Your task to perform on an android device: star an email in the gmail app Image 0: 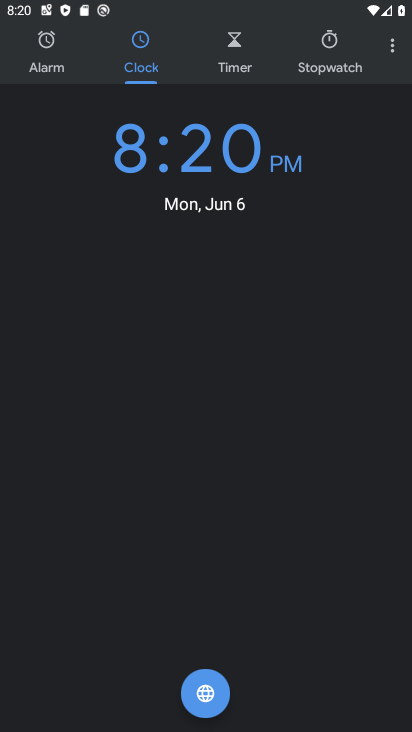
Step 0: press home button
Your task to perform on an android device: star an email in the gmail app Image 1: 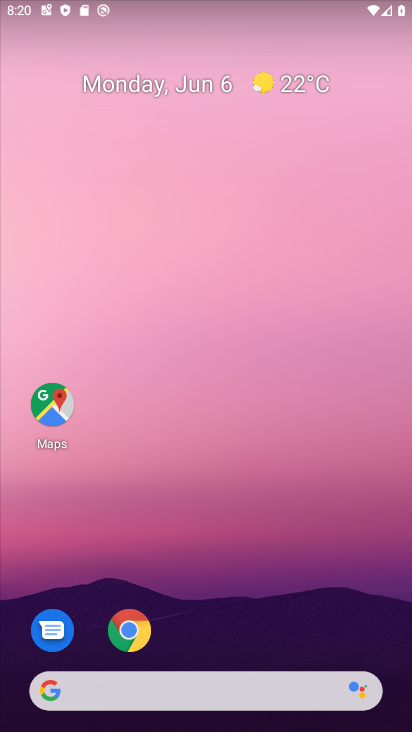
Step 1: click (116, 726)
Your task to perform on an android device: star an email in the gmail app Image 2: 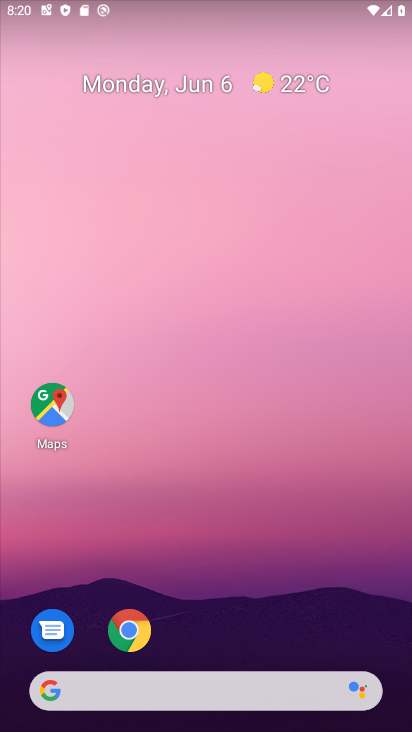
Step 2: drag from (264, 443) to (309, 264)
Your task to perform on an android device: star an email in the gmail app Image 3: 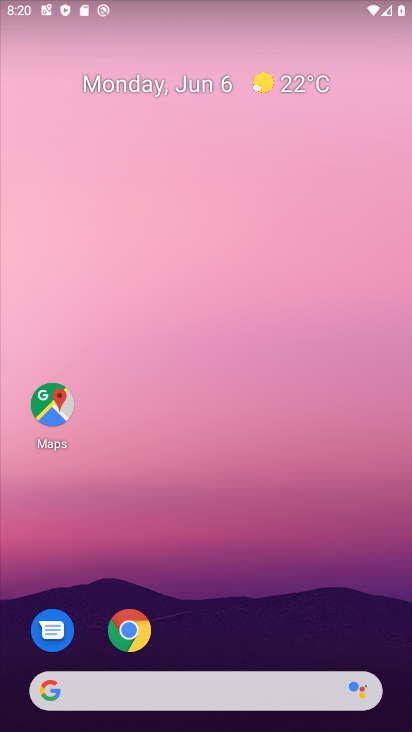
Step 3: drag from (219, 729) to (222, 43)
Your task to perform on an android device: star an email in the gmail app Image 4: 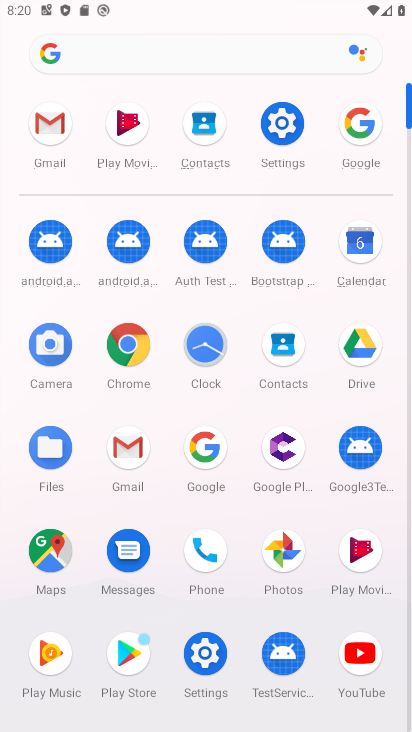
Step 4: click (37, 133)
Your task to perform on an android device: star an email in the gmail app Image 5: 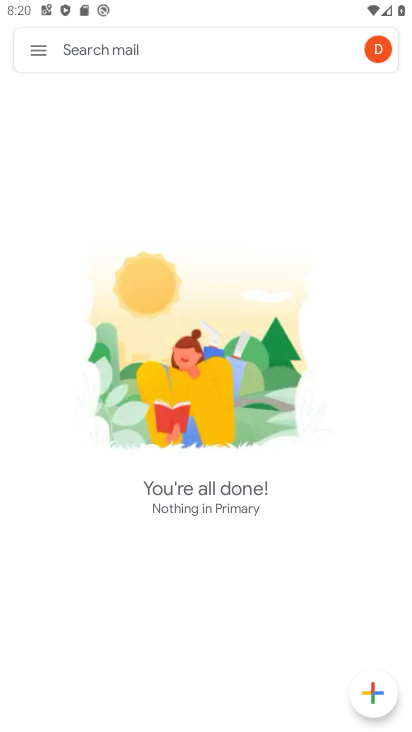
Step 5: click (29, 40)
Your task to perform on an android device: star an email in the gmail app Image 6: 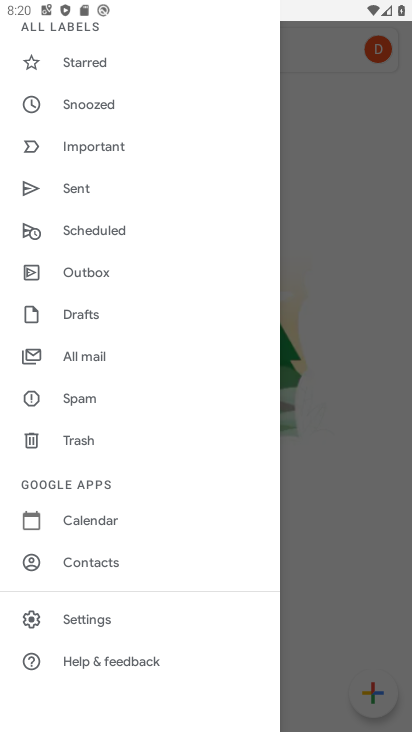
Step 6: click (103, 362)
Your task to perform on an android device: star an email in the gmail app Image 7: 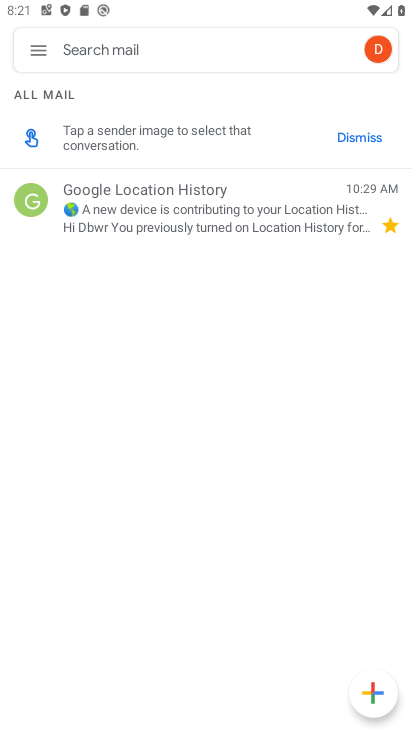
Step 7: task complete